Your task to perform on an android device: delete the emails in spam in the gmail app Image 0: 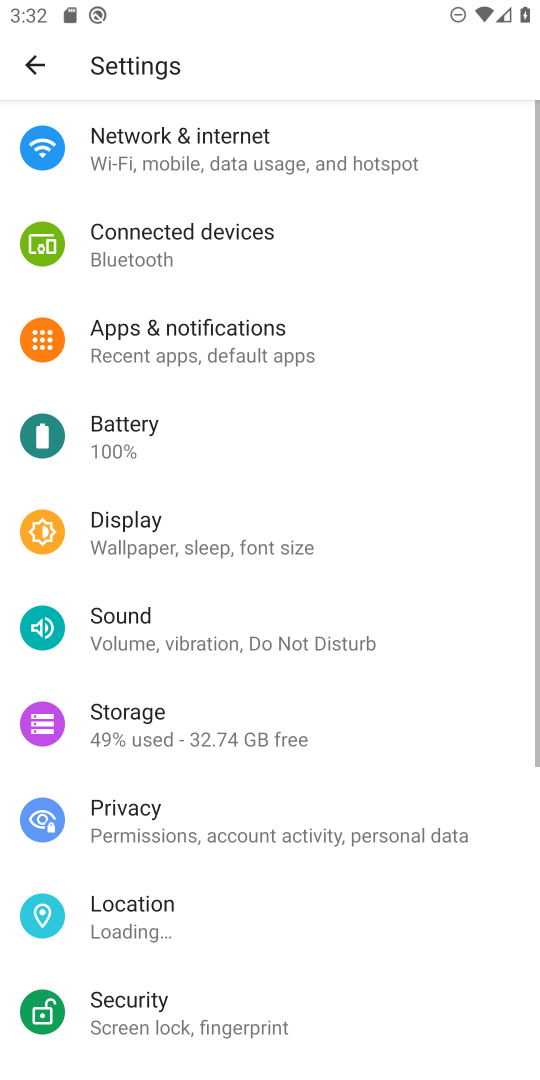
Step 0: press home button
Your task to perform on an android device: delete the emails in spam in the gmail app Image 1: 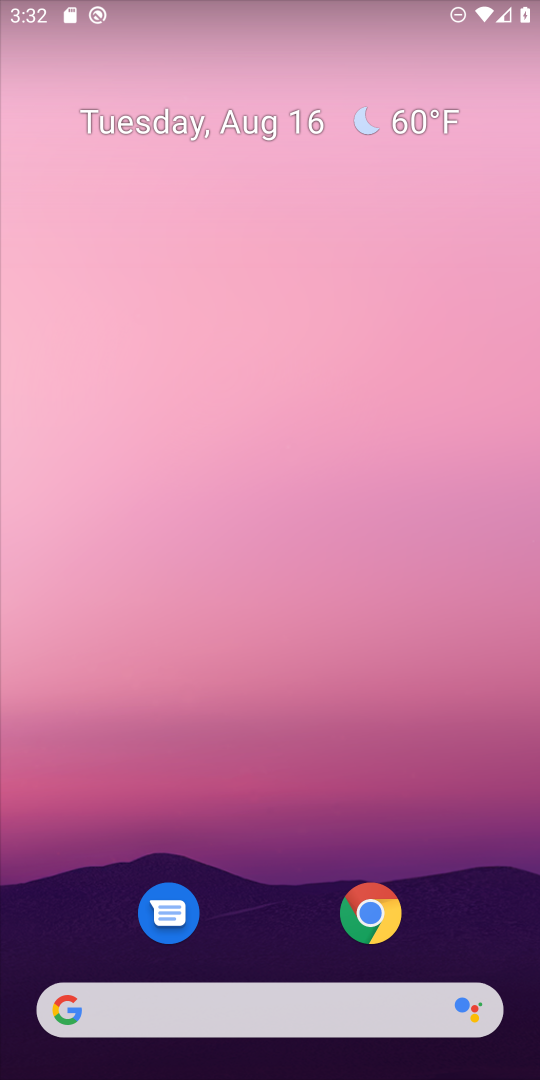
Step 1: drag from (524, 970) to (428, 195)
Your task to perform on an android device: delete the emails in spam in the gmail app Image 2: 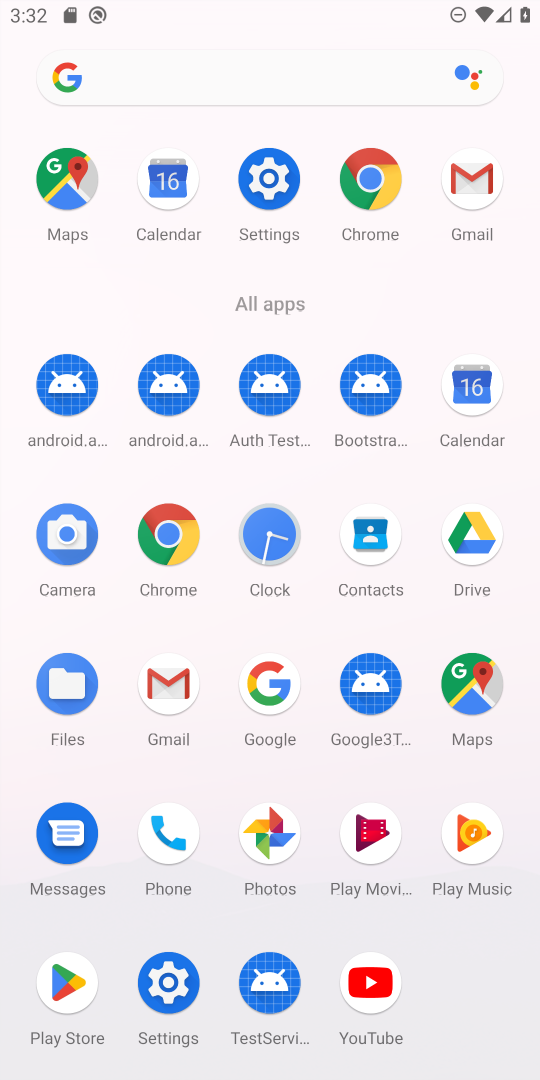
Step 2: click (169, 683)
Your task to perform on an android device: delete the emails in spam in the gmail app Image 3: 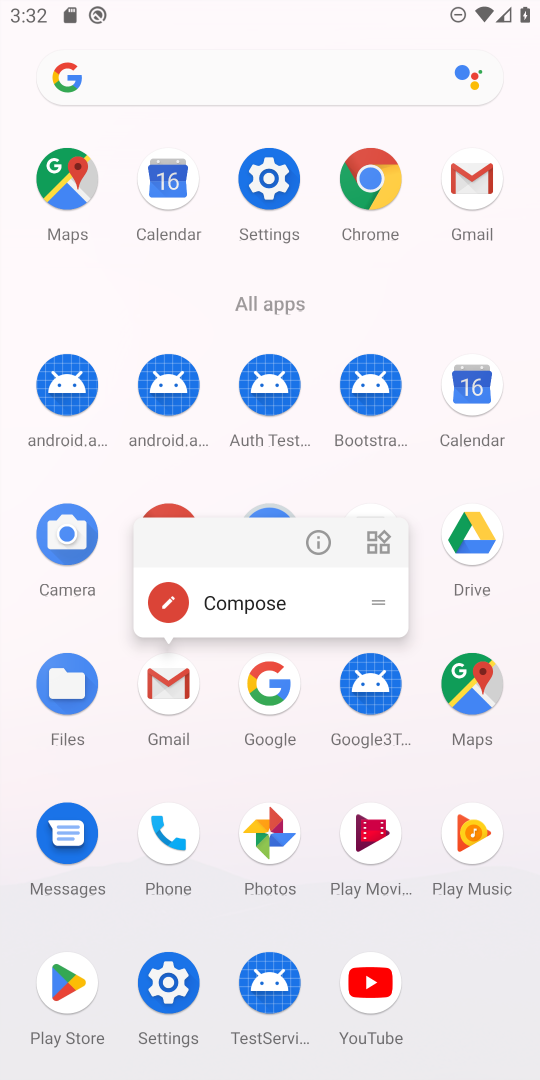
Step 3: click (165, 685)
Your task to perform on an android device: delete the emails in spam in the gmail app Image 4: 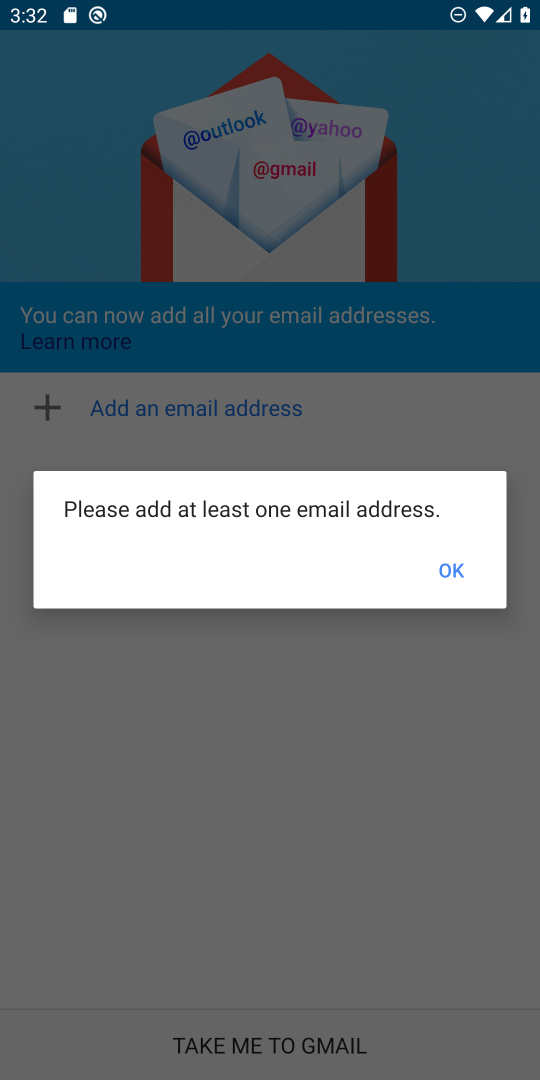
Step 4: click (453, 565)
Your task to perform on an android device: delete the emails in spam in the gmail app Image 5: 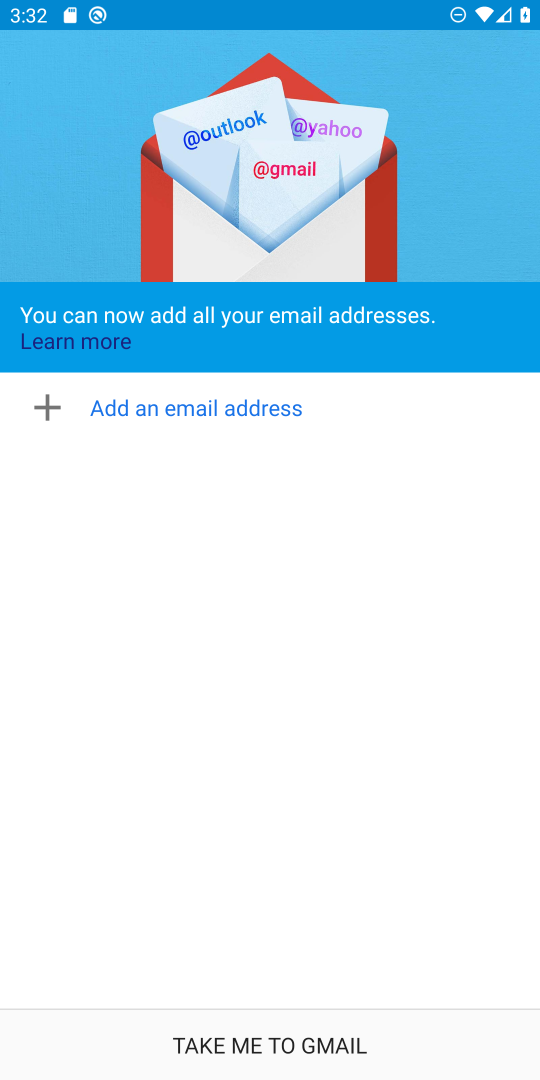
Step 5: task complete